Your task to perform on an android device: open app "Google Translate" Image 0: 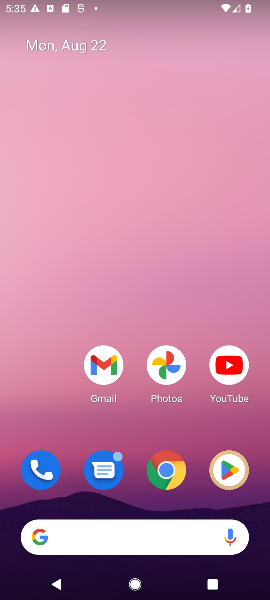
Step 0: drag from (84, 503) to (99, 127)
Your task to perform on an android device: open app "Google Translate" Image 1: 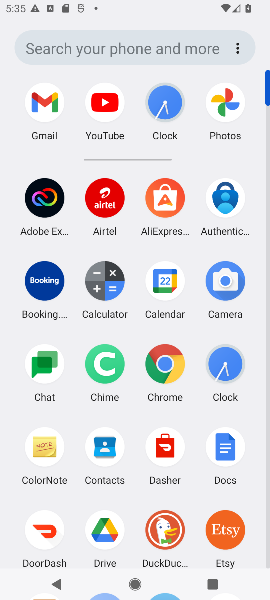
Step 1: drag from (187, 498) to (215, 130)
Your task to perform on an android device: open app "Google Translate" Image 2: 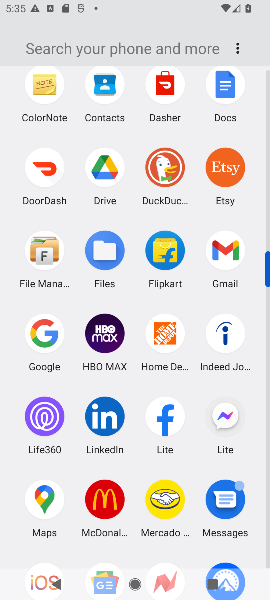
Step 2: drag from (109, 502) to (149, 195)
Your task to perform on an android device: open app "Google Translate" Image 3: 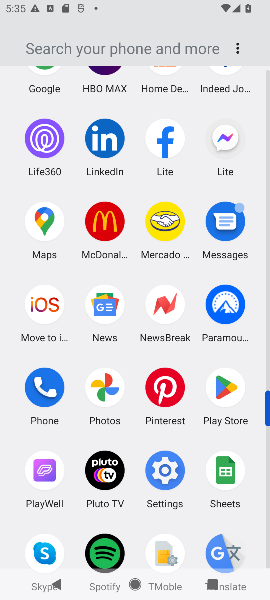
Step 3: click (222, 372)
Your task to perform on an android device: open app "Google Translate" Image 4: 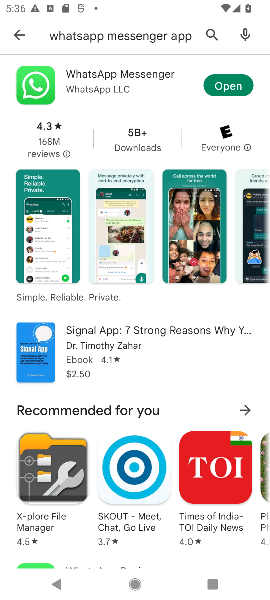
Step 4: click (27, 26)
Your task to perform on an android device: open app "Google Translate" Image 5: 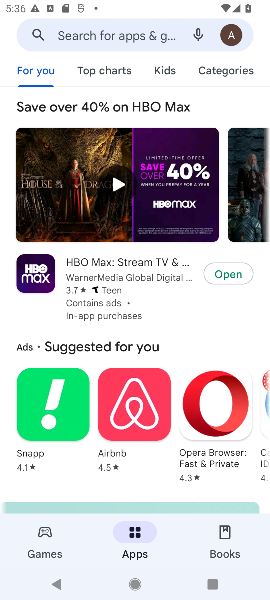
Step 5: click (112, 28)
Your task to perform on an android device: open app "Google Translate" Image 6: 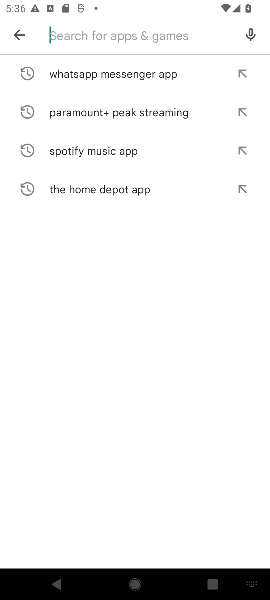
Step 6: type "Google Translate "
Your task to perform on an android device: open app "Google Translate" Image 7: 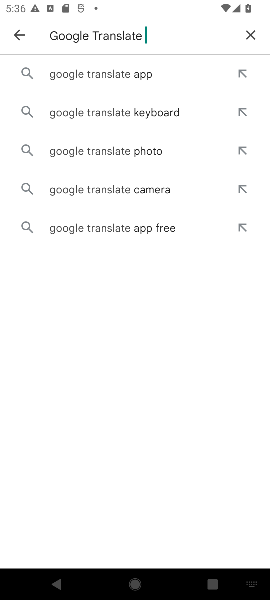
Step 7: click (89, 76)
Your task to perform on an android device: open app "Google Translate" Image 8: 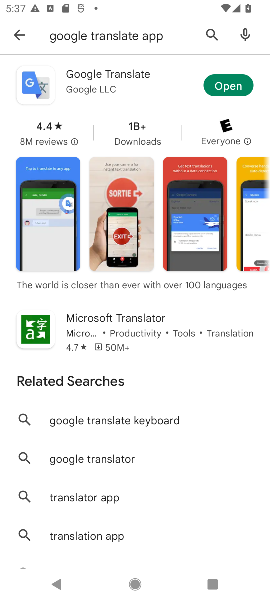
Step 8: click (211, 81)
Your task to perform on an android device: open app "Google Translate" Image 9: 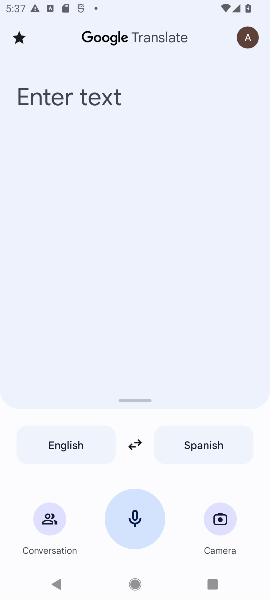
Step 9: task complete